Your task to perform on an android device: find snoozed emails in the gmail app Image 0: 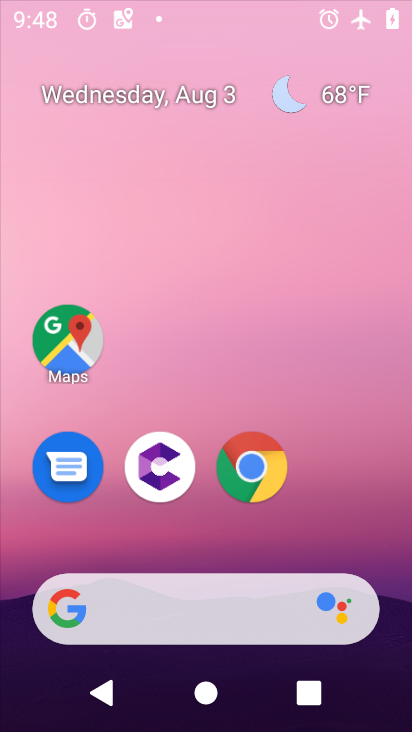
Step 0: drag from (369, 490) to (353, 11)
Your task to perform on an android device: find snoozed emails in the gmail app Image 1: 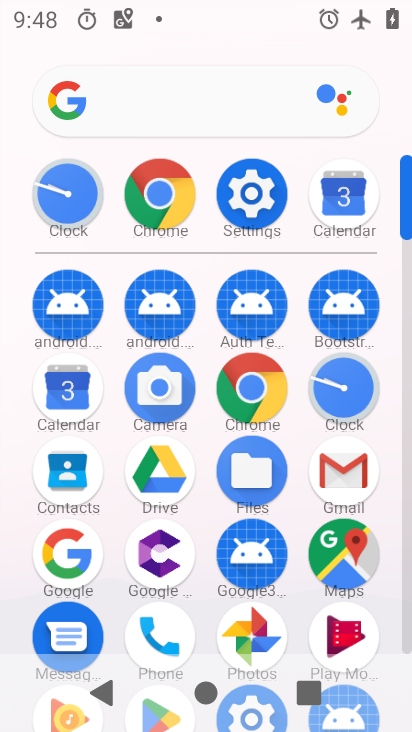
Step 1: click (342, 468)
Your task to perform on an android device: find snoozed emails in the gmail app Image 2: 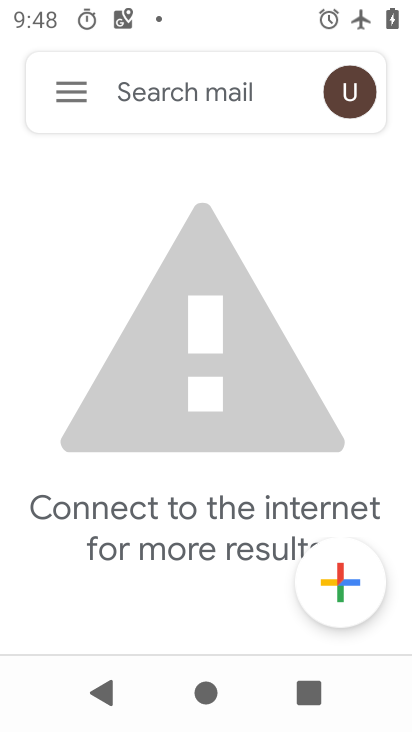
Step 2: click (71, 91)
Your task to perform on an android device: find snoozed emails in the gmail app Image 3: 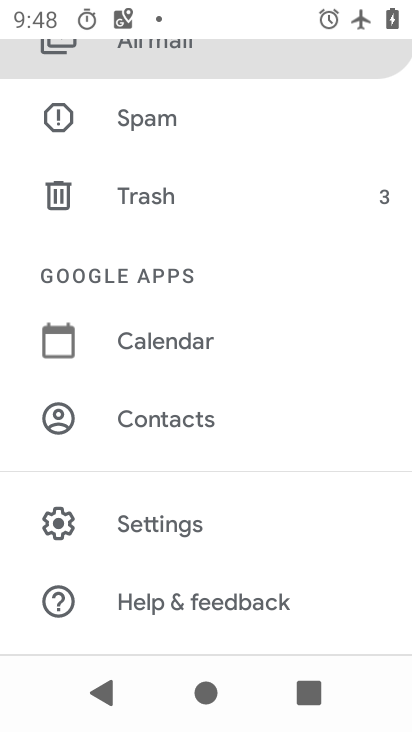
Step 3: drag from (220, 246) to (212, 617)
Your task to perform on an android device: find snoozed emails in the gmail app Image 4: 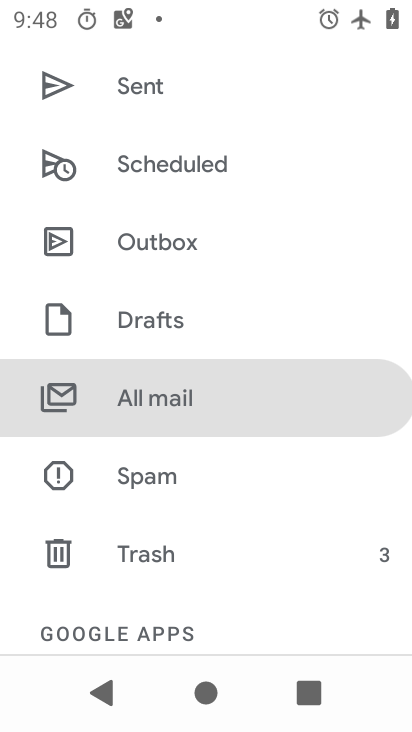
Step 4: drag from (264, 220) to (263, 492)
Your task to perform on an android device: find snoozed emails in the gmail app Image 5: 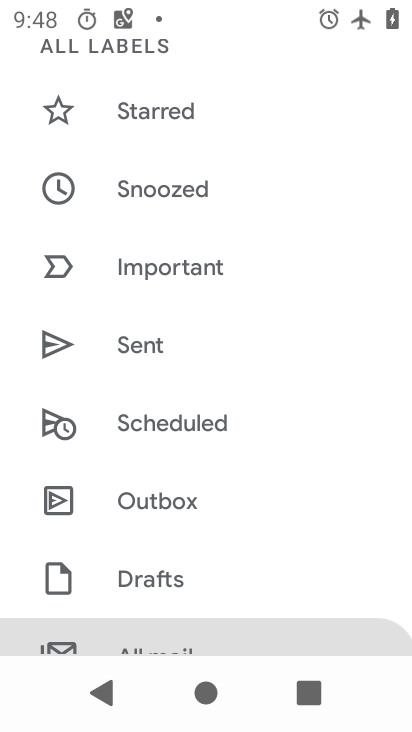
Step 5: click (163, 190)
Your task to perform on an android device: find snoozed emails in the gmail app Image 6: 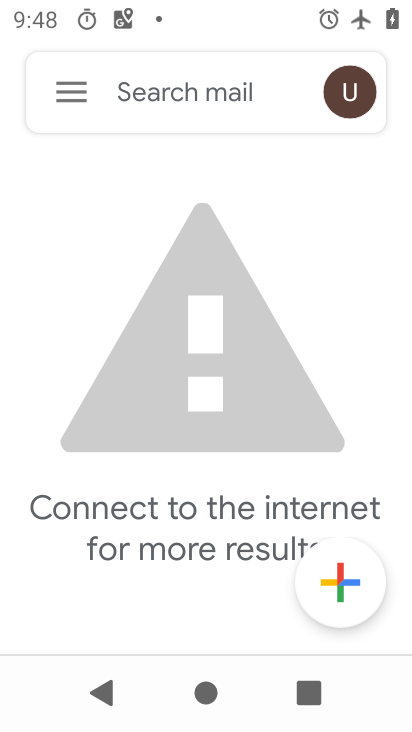
Step 6: task complete